Your task to perform on an android device: create a new album in the google photos Image 0: 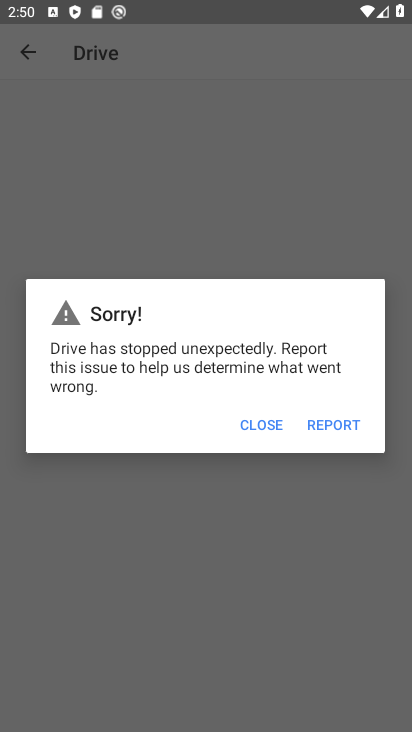
Step 0: click (259, 427)
Your task to perform on an android device: create a new album in the google photos Image 1: 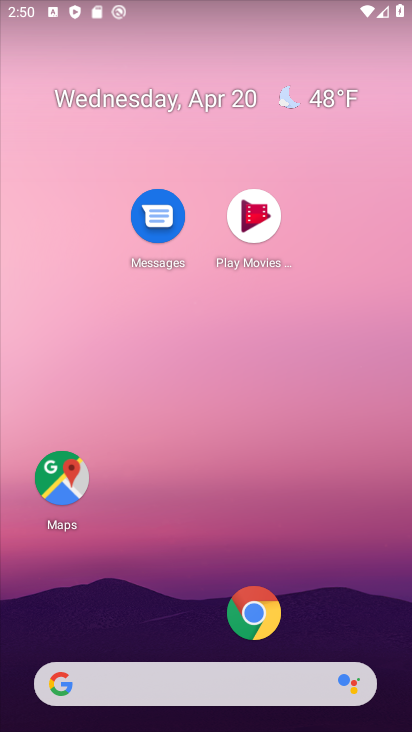
Step 1: drag from (334, 520) to (342, 115)
Your task to perform on an android device: create a new album in the google photos Image 2: 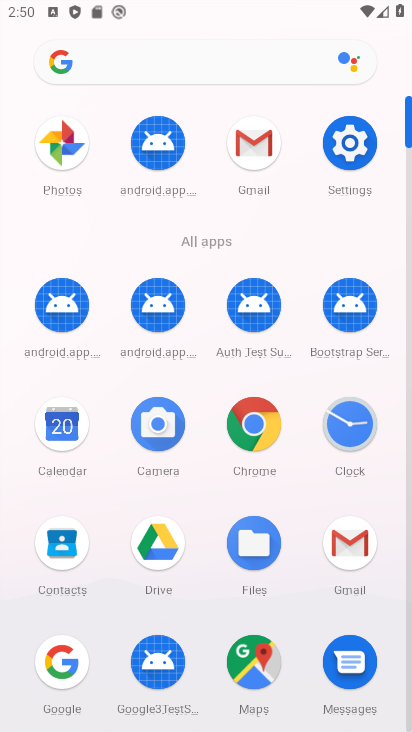
Step 2: click (52, 162)
Your task to perform on an android device: create a new album in the google photos Image 3: 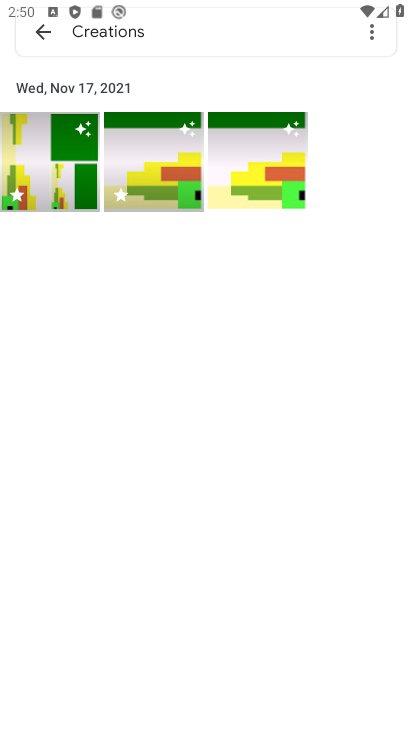
Step 3: click (42, 35)
Your task to perform on an android device: create a new album in the google photos Image 4: 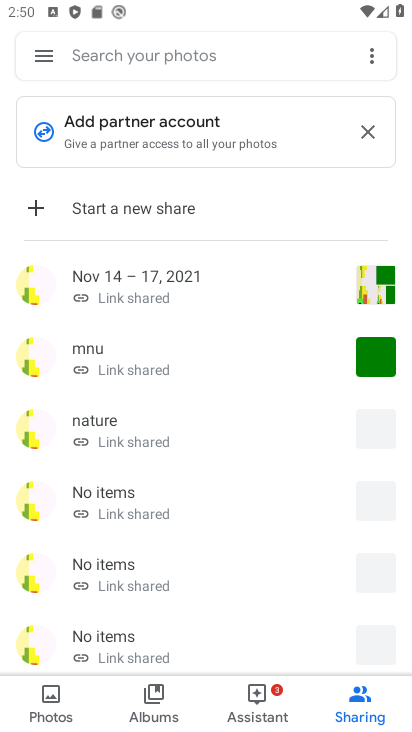
Step 4: click (137, 709)
Your task to perform on an android device: create a new album in the google photos Image 5: 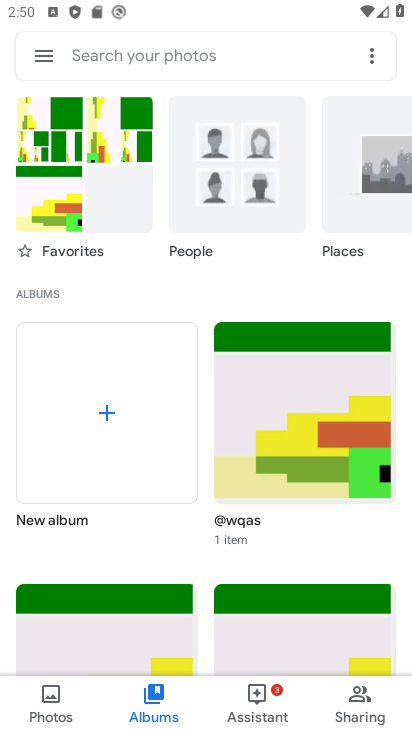
Step 5: click (130, 443)
Your task to perform on an android device: create a new album in the google photos Image 6: 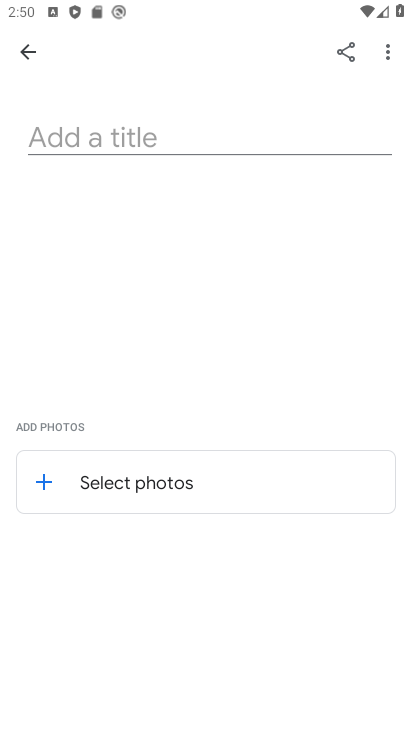
Step 6: click (119, 127)
Your task to perform on an android device: create a new album in the google photos Image 7: 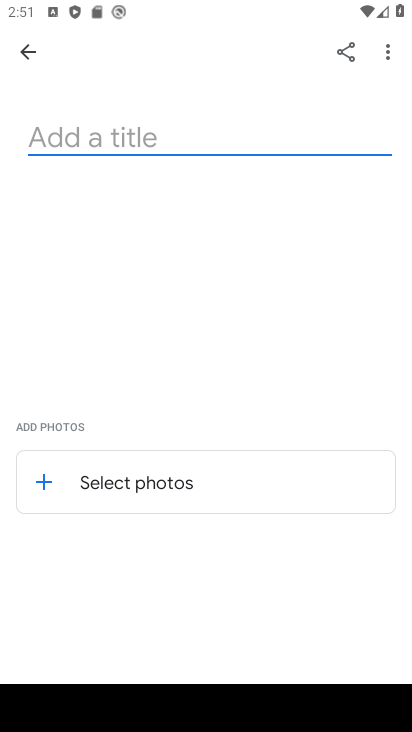
Step 7: type " c    cc  "
Your task to perform on an android device: create a new album in the google photos Image 8: 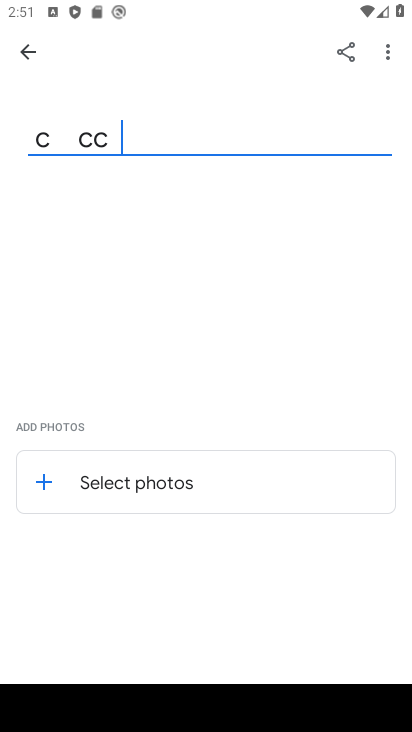
Step 8: type ""
Your task to perform on an android device: create a new album in the google photos Image 9: 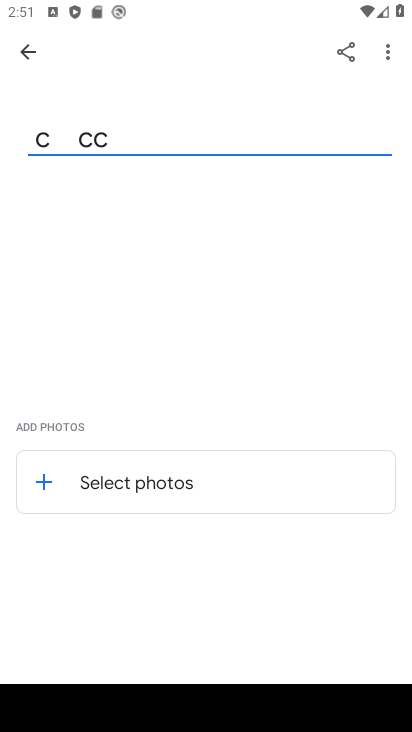
Step 9: click (167, 473)
Your task to perform on an android device: create a new album in the google photos Image 10: 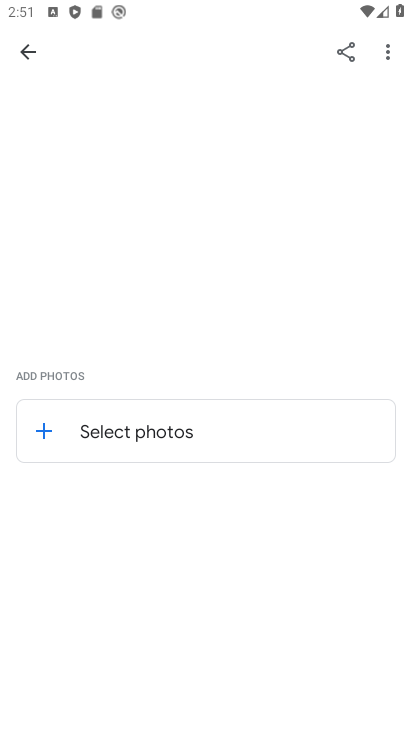
Step 10: click (187, 437)
Your task to perform on an android device: create a new album in the google photos Image 11: 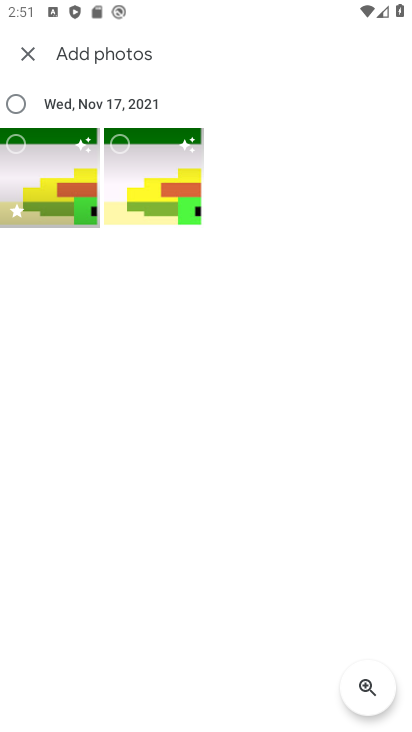
Step 11: click (27, 168)
Your task to perform on an android device: create a new album in the google photos Image 12: 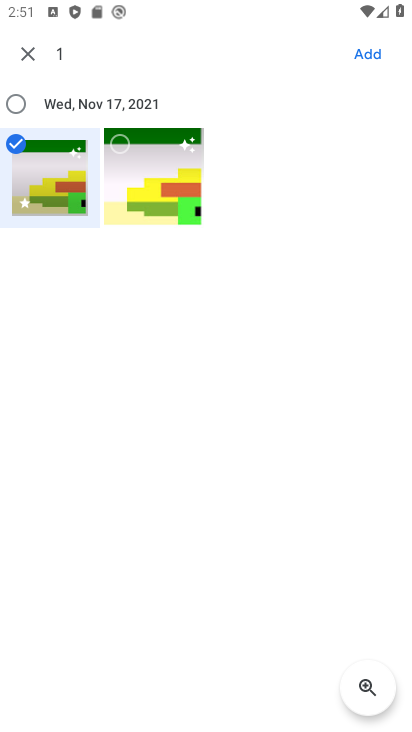
Step 12: click (372, 55)
Your task to perform on an android device: create a new album in the google photos Image 13: 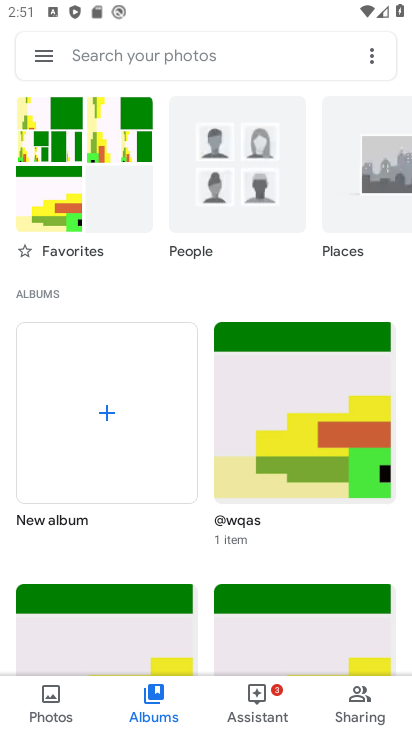
Step 13: task complete